Your task to perform on an android device: turn on airplane mode Image 0: 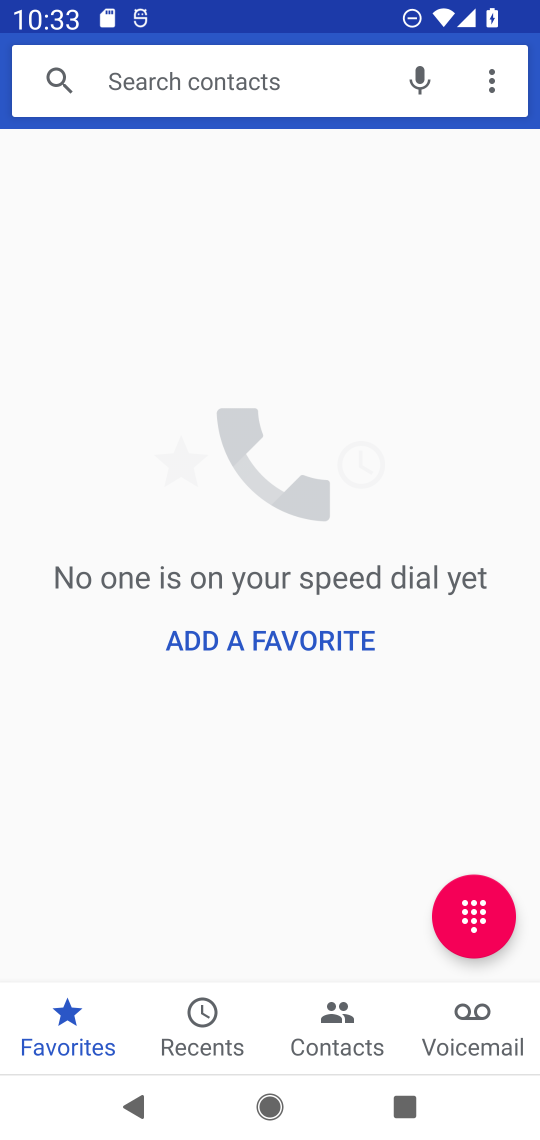
Step 0: press home button
Your task to perform on an android device: turn on airplane mode Image 1: 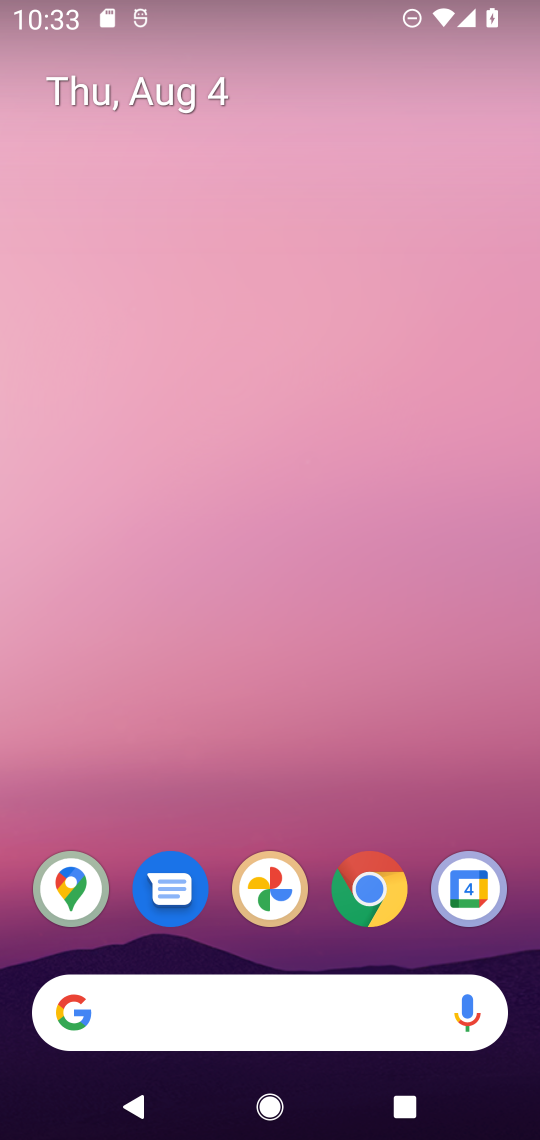
Step 1: drag from (357, 790) to (374, 293)
Your task to perform on an android device: turn on airplane mode Image 2: 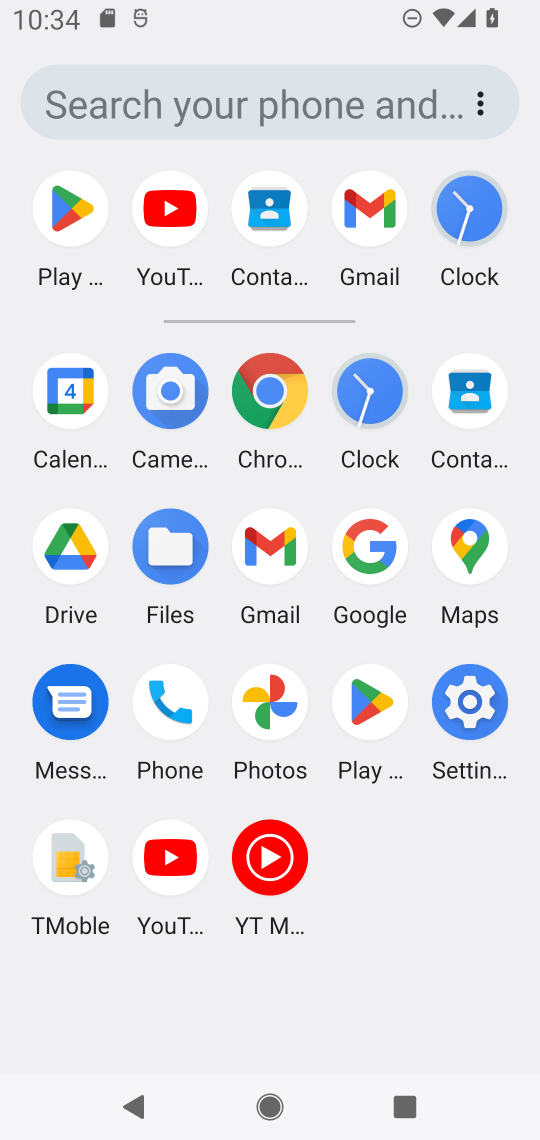
Step 2: click (480, 707)
Your task to perform on an android device: turn on airplane mode Image 3: 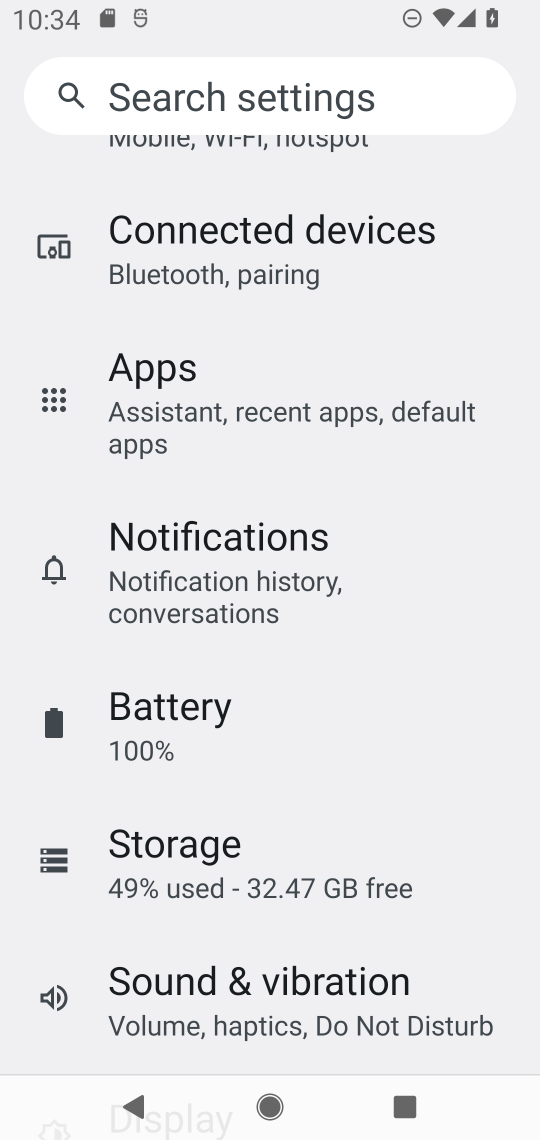
Step 3: drag from (470, 313) to (483, 526)
Your task to perform on an android device: turn on airplane mode Image 4: 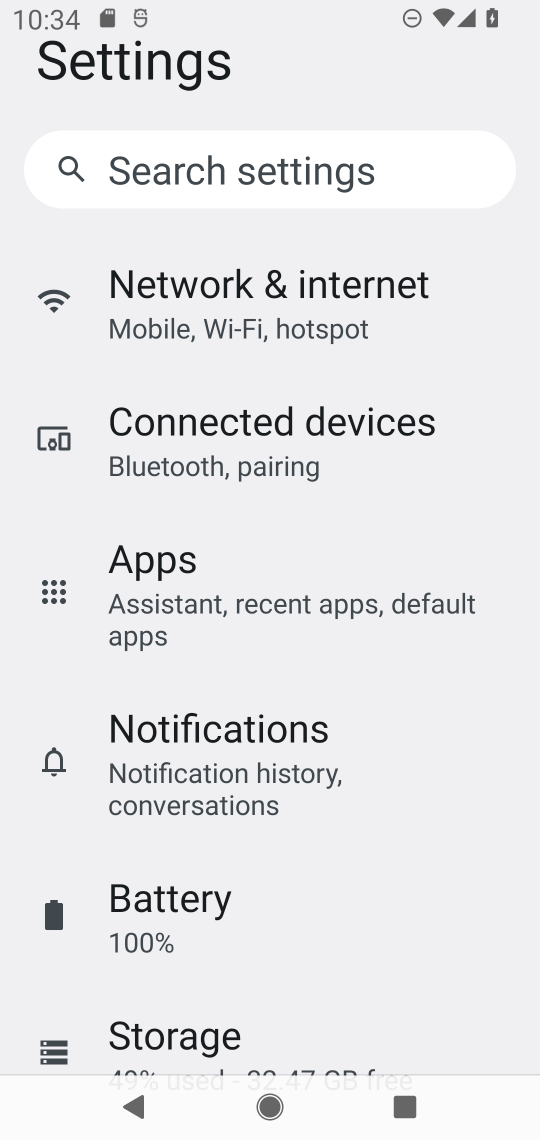
Step 4: drag from (474, 359) to (485, 489)
Your task to perform on an android device: turn on airplane mode Image 5: 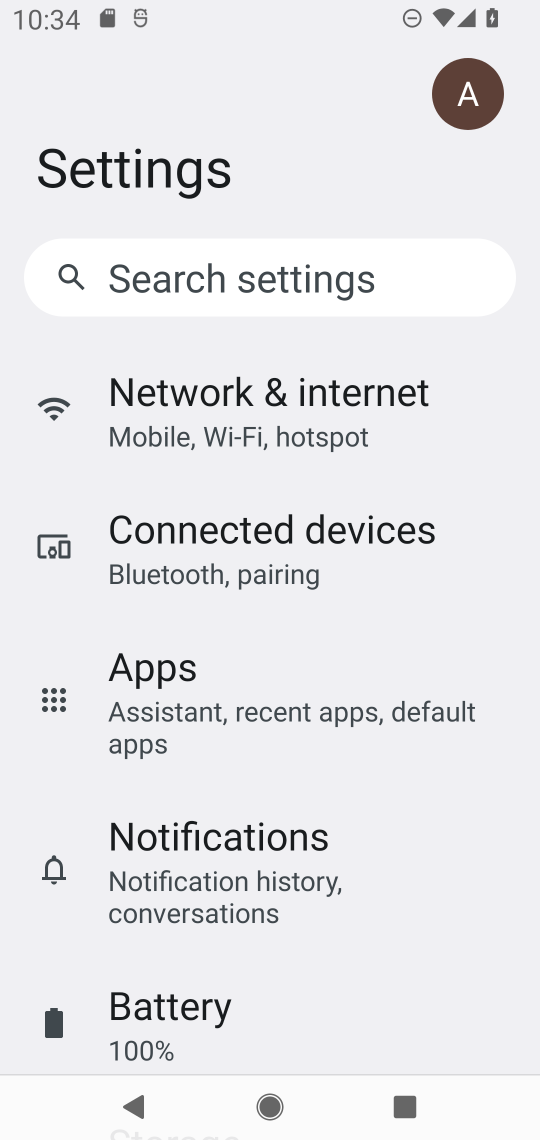
Step 5: drag from (427, 197) to (469, 581)
Your task to perform on an android device: turn on airplane mode Image 6: 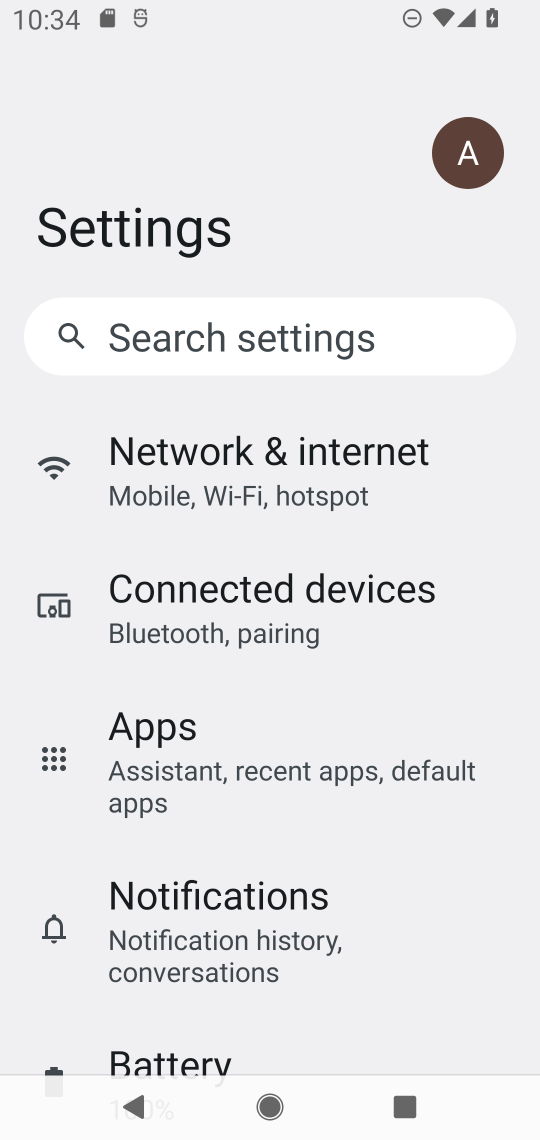
Step 6: click (262, 473)
Your task to perform on an android device: turn on airplane mode Image 7: 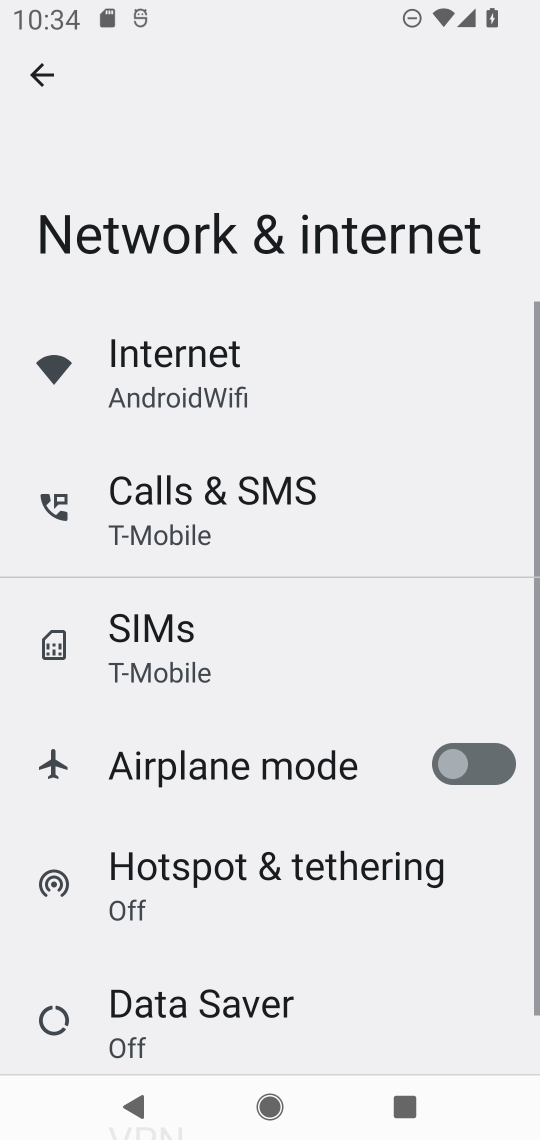
Step 7: drag from (396, 827) to (386, 645)
Your task to perform on an android device: turn on airplane mode Image 8: 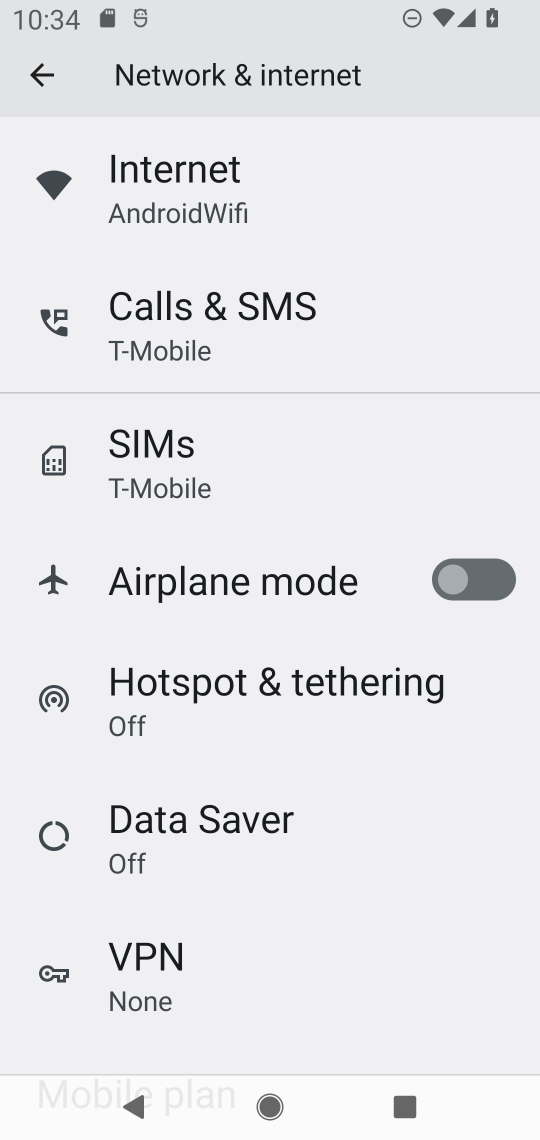
Step 8: drag from (368, 870) to (368, 687)
Your task to perform on an android device: turn on airplane mode Image 9: 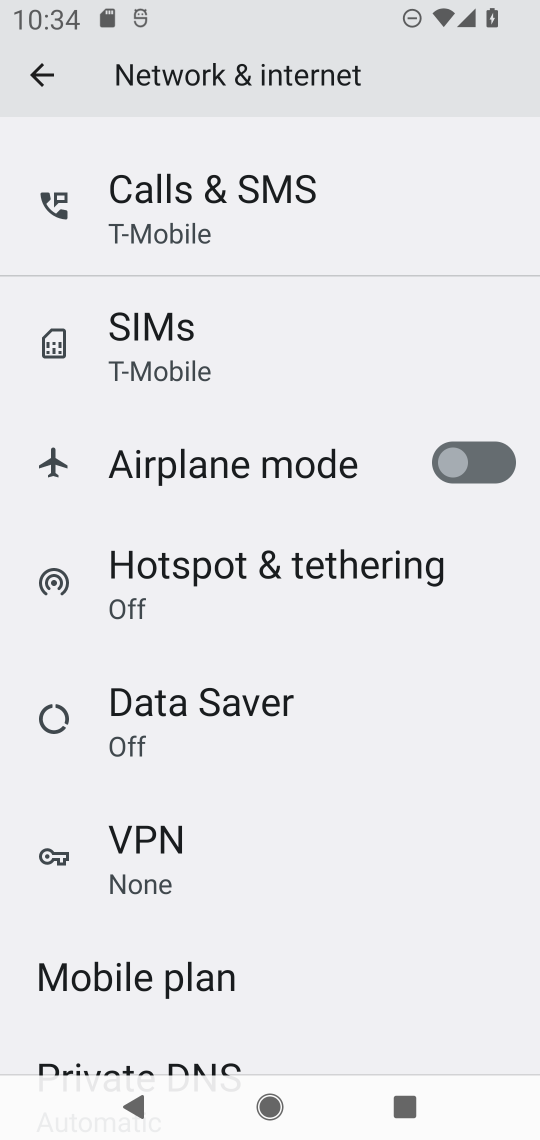
Step 9: click (458, 459)
Your task to perform on an android device: turn on airplane mode Image 10: 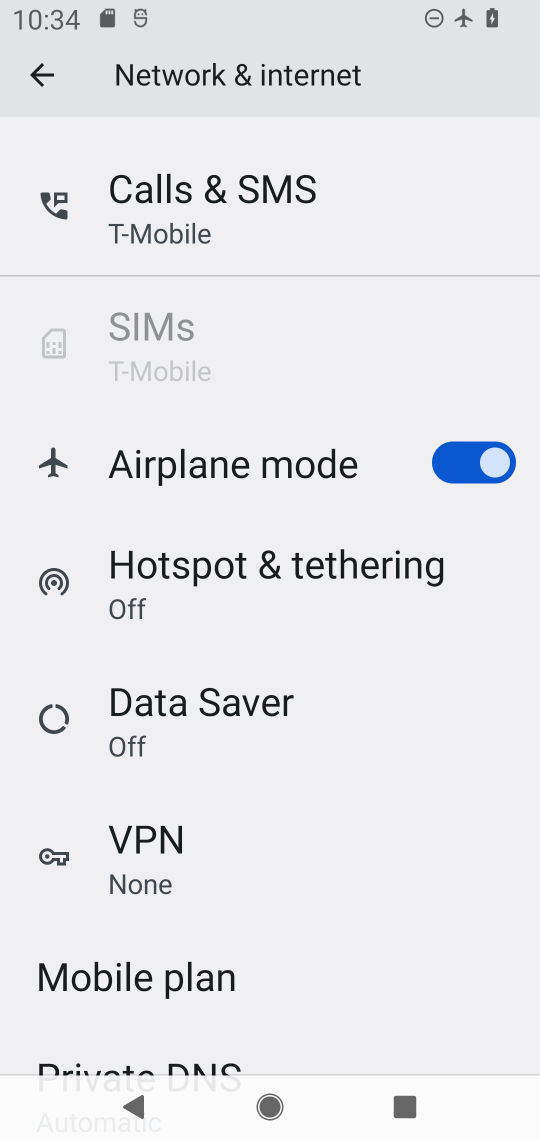
Step 10: task complete